Your task to perform on an android device: open a bookmark in the chrome app Image 0: 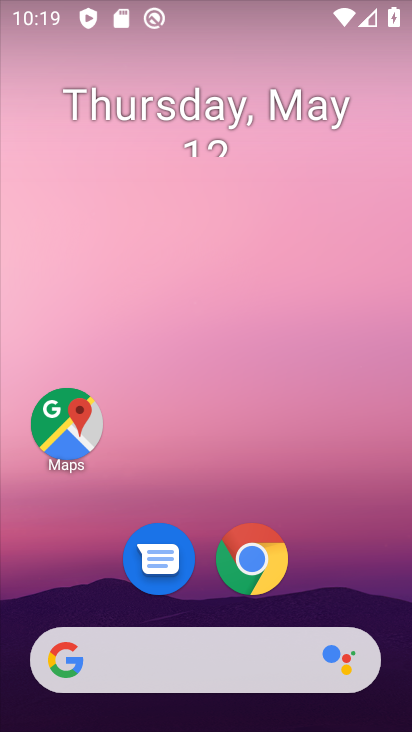
Step 0: click (231, 572)
Your task to perform on an android device: open a bookmark in the chrome app Image 1: 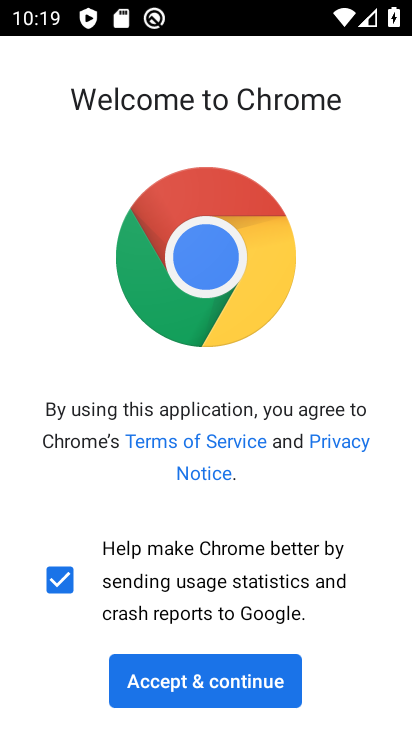
Step 1: click (270, 669)
Your task to perform on an android device: open a bookmark in the chrome app Image 2: 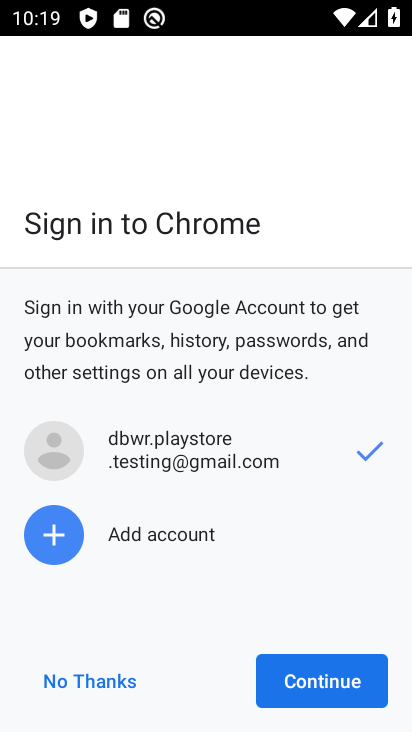
Step 2: click (315, 674)
Your task to perform on an android device: open a bookmark in the chrome app Image 3: 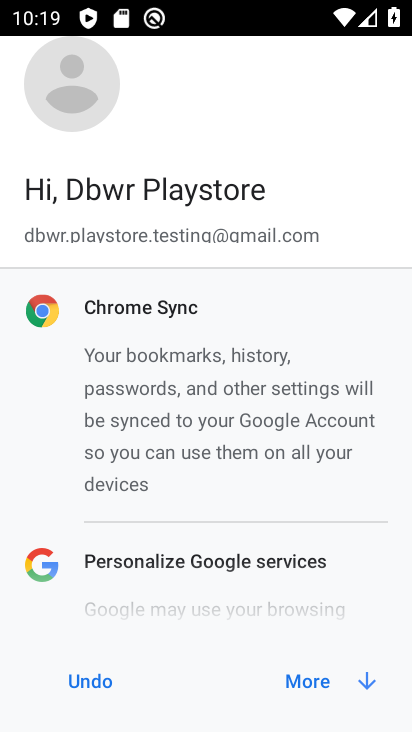
Step 3: click (307, 668)
Your task to perform on an android device: open a bookmark in the chrome app Image 4: 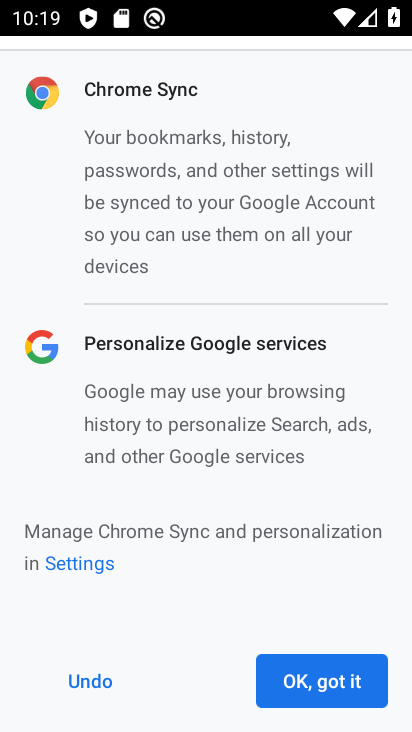
Step 4: click (308, 669)
Your task to perform on an android device: open a bookmark in the chrome app Image 5: 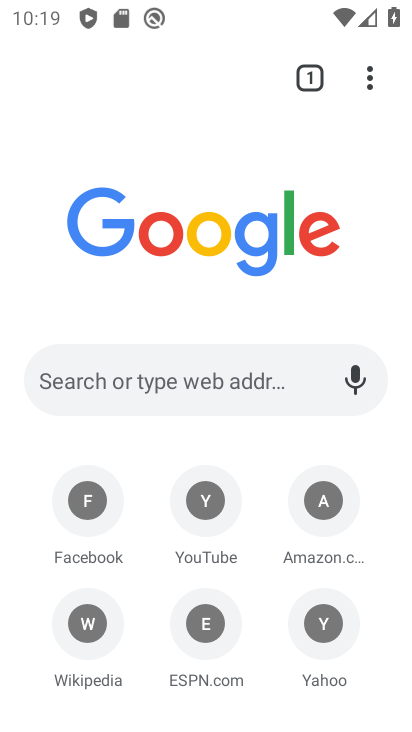
Step 5: task complete